Your task to perform on an android device: Check the price on the Dyson V11 Motorhead on Best Buy Image 0: 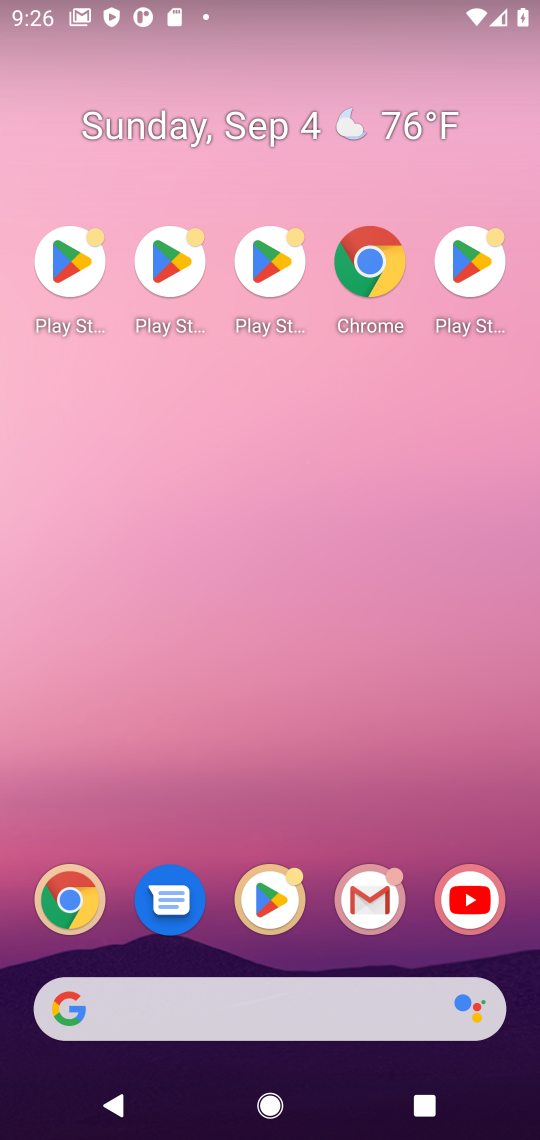
Step 0: drag from (353, 984) to (165, 266)
Your task to perform on an android device: Check the price on the Dyson V11 Motorhead on Best Buy Image 1: 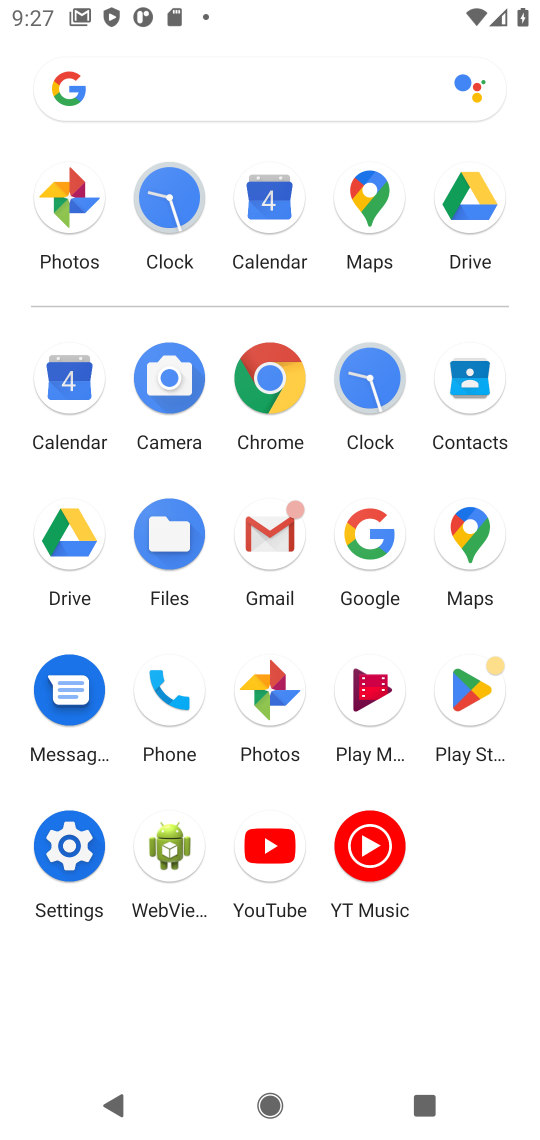
Step 1: click (283, 406)
Your task to perform on an android device: Check the price on the Dyson V11 Motorhead on Best Buy Image 2: 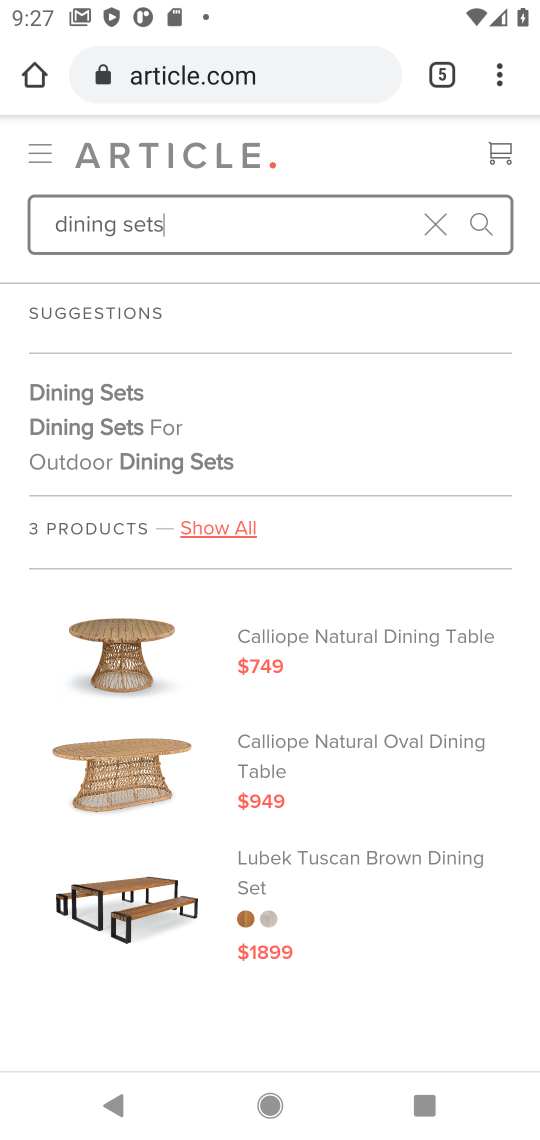
Step 2: click (38, 64)
Your task to perform on an android device: Check the price on the Dyson V11 Motorhead on Best Buy Image 3: 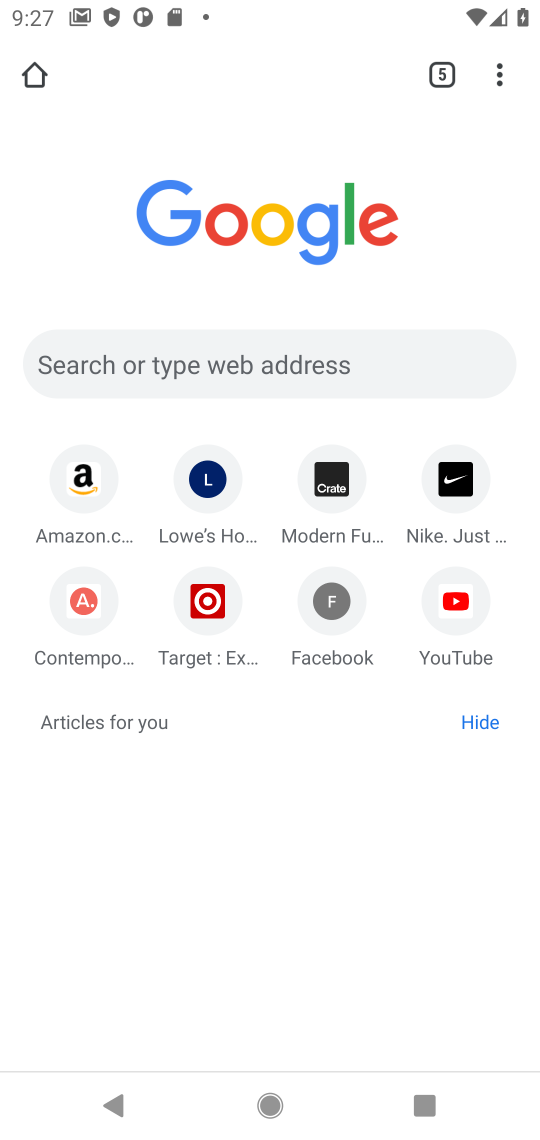
Step 3: click (251, 404)
Your task to perform on an android device: Check the price on the Dyson V11 Motorhead on Best Buy Image 4: 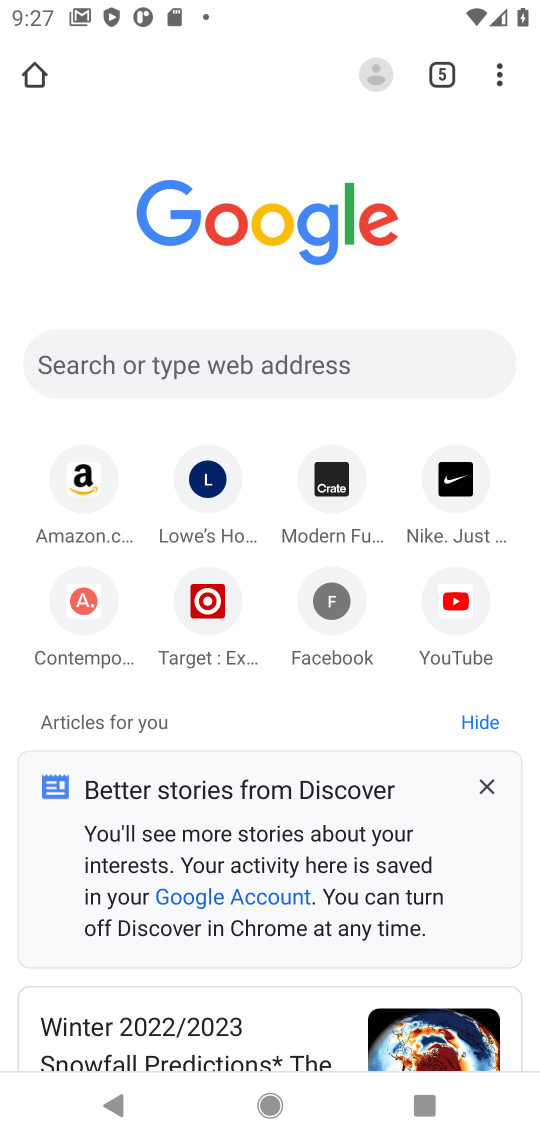
Step 4: click (253, 399)
Your task to perform on an android device: Check the price on the Dyson V11 Motorhead on Best Buy Image 5: 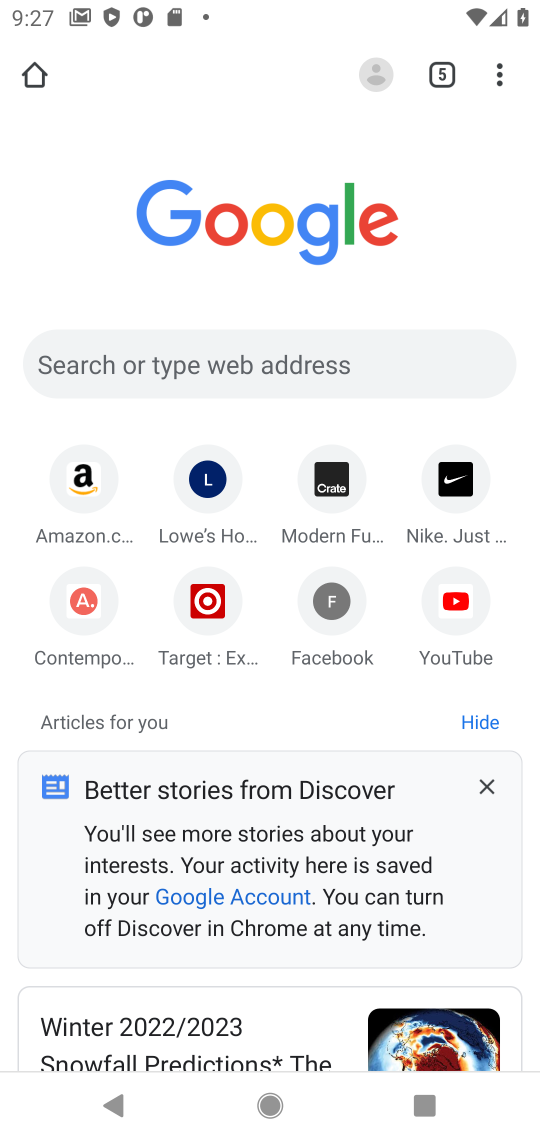
Step 5: click (318, 365)
Your task to perform on an android device: Check the price on the Dyson V11 Motorhead on Best Buy Image 6: 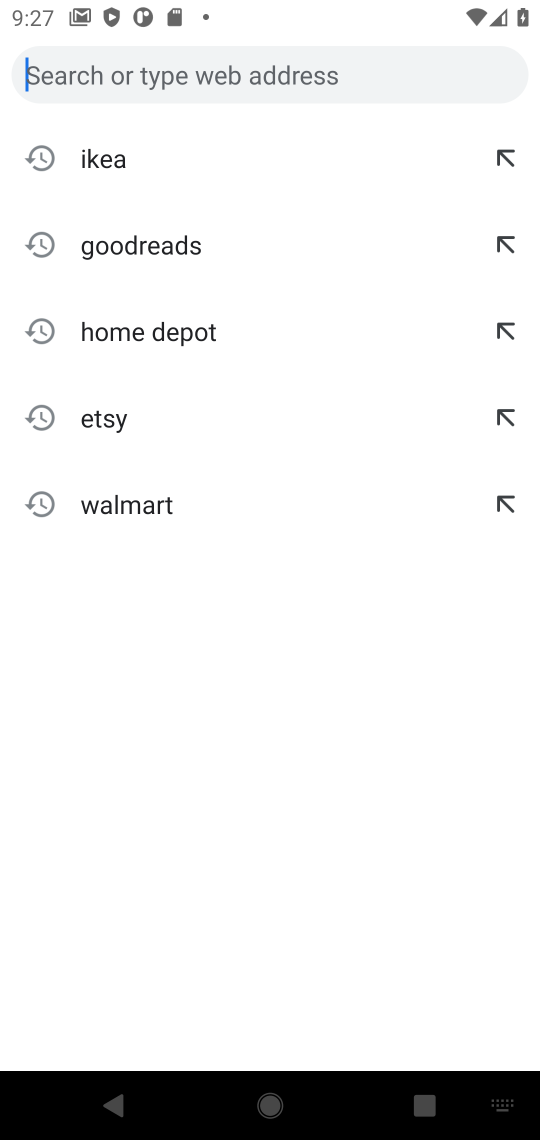
Step 6: type " Best Buy"
Your task to perform on an android device: Check the price on the Dyson V11 Motorhead on Best Buy Image 7: 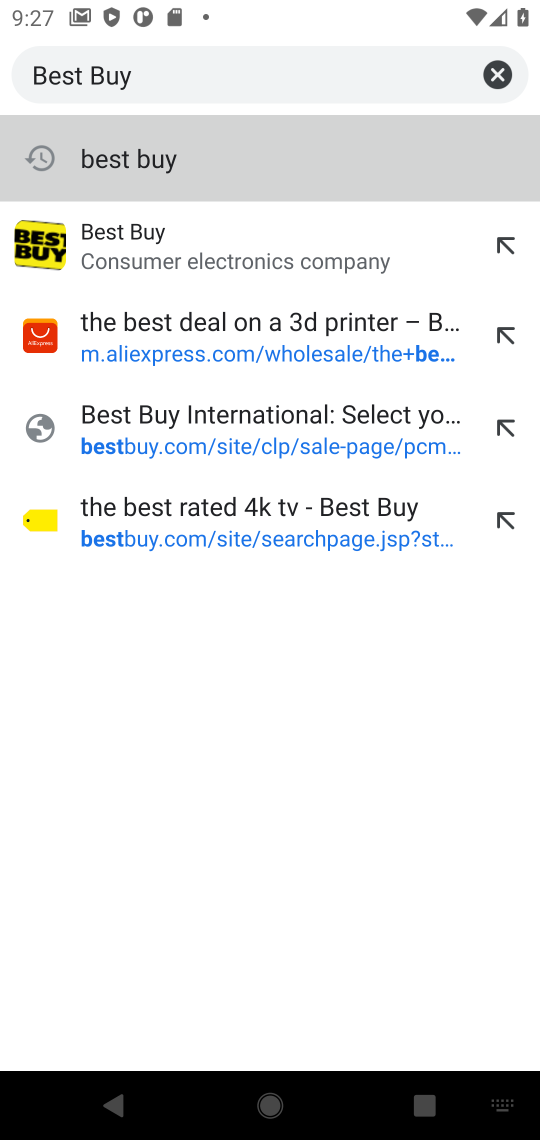
Step 7: click (168, 159)
Your task to perform on an android device: Check the price on the Dyson V11 Motorhead on Best Buy Image 8: 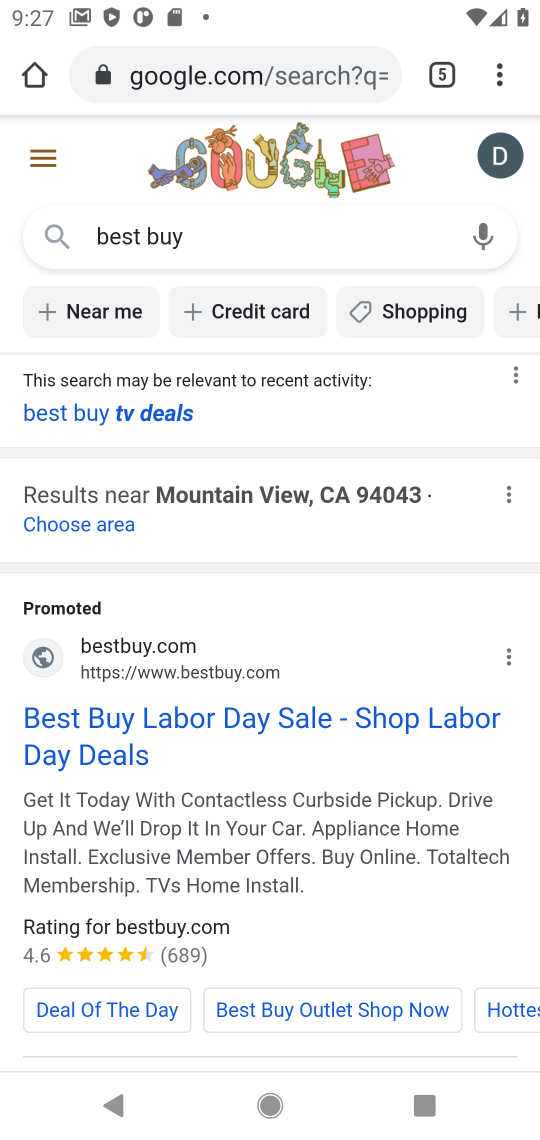
Step 8: click (72, 695)
Your task to perform on an android device: Check the price on the Dyson V11 Motorhead on Best Buy Image 9: 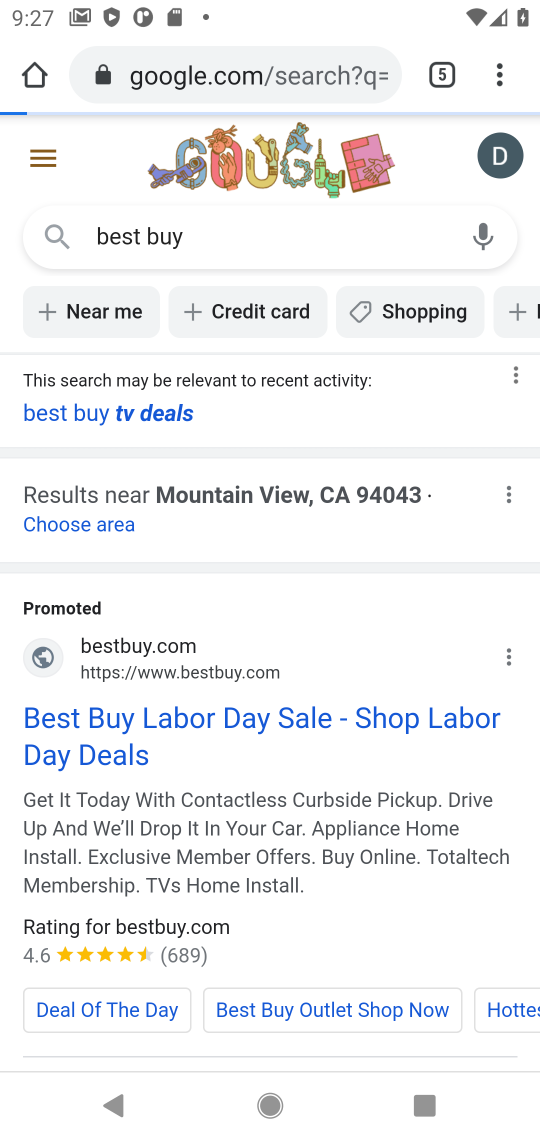
Step 9: click (97, 746)
Your task to perform on an android device: Check the price on the Dyson V11 Motorhead on Best Buy Image 10: 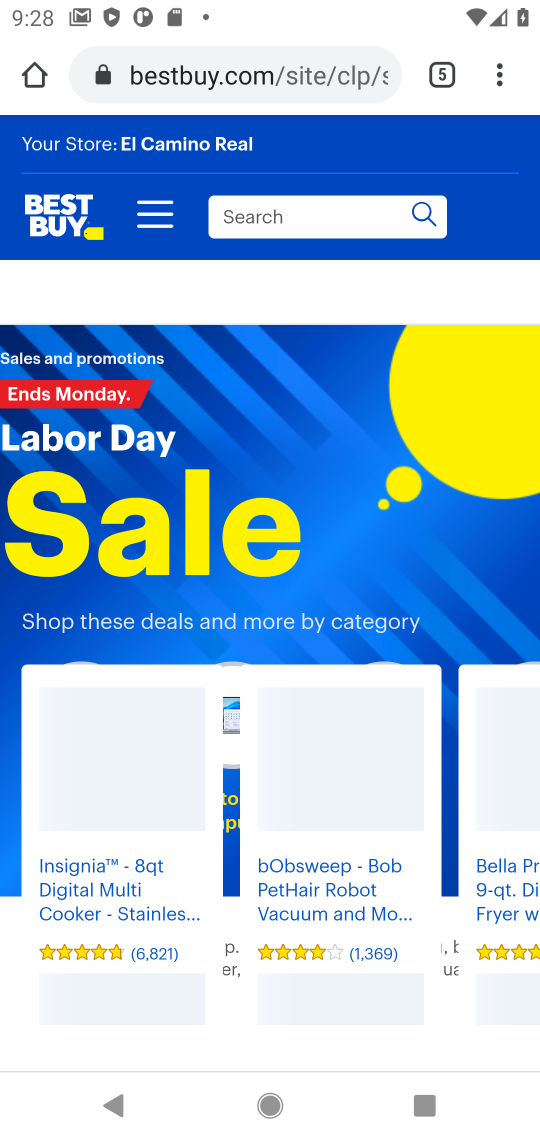
Step 10: click (274, 222)
Your task to perform on an android device: Check the price on the Dyson V11 Motorhead on Best Buy Image 11: 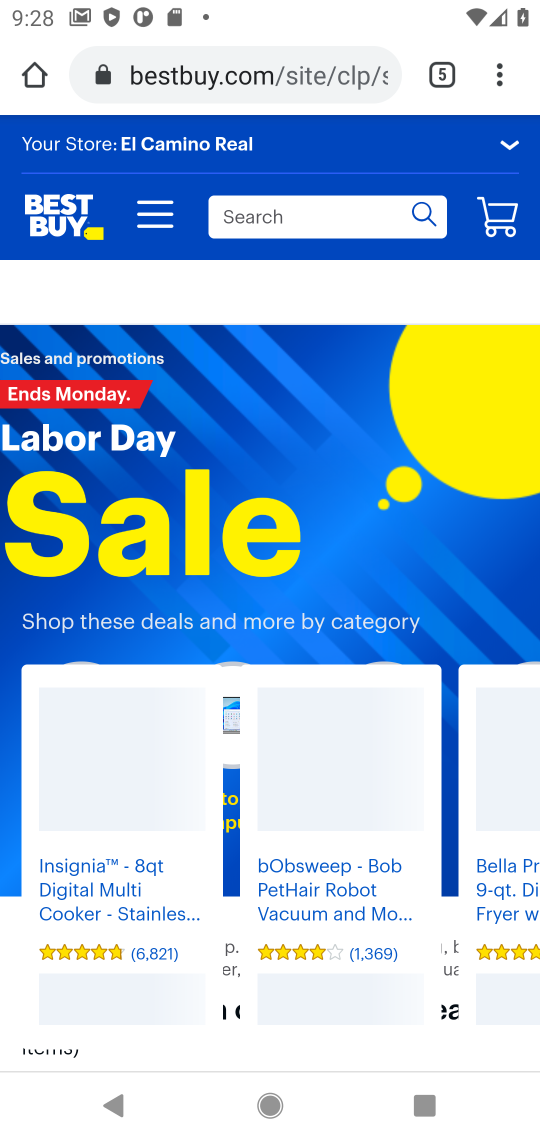
Step 11: click (241, 226)
Your task to perform on an android device: Check the price on the Dyson V11 Motorhead on Best Buy Image 12: 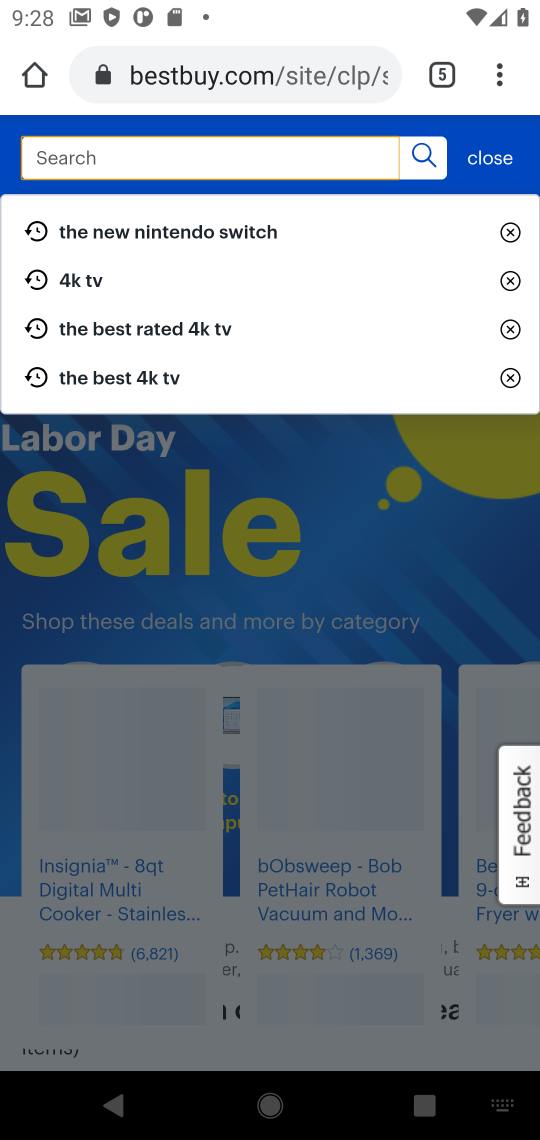
Step 12: type "the Dyson V11 Motorhead"
Your task to perform on an android device: Check the price on the Dyson V11 Motorhead on Best Buy Image 13: 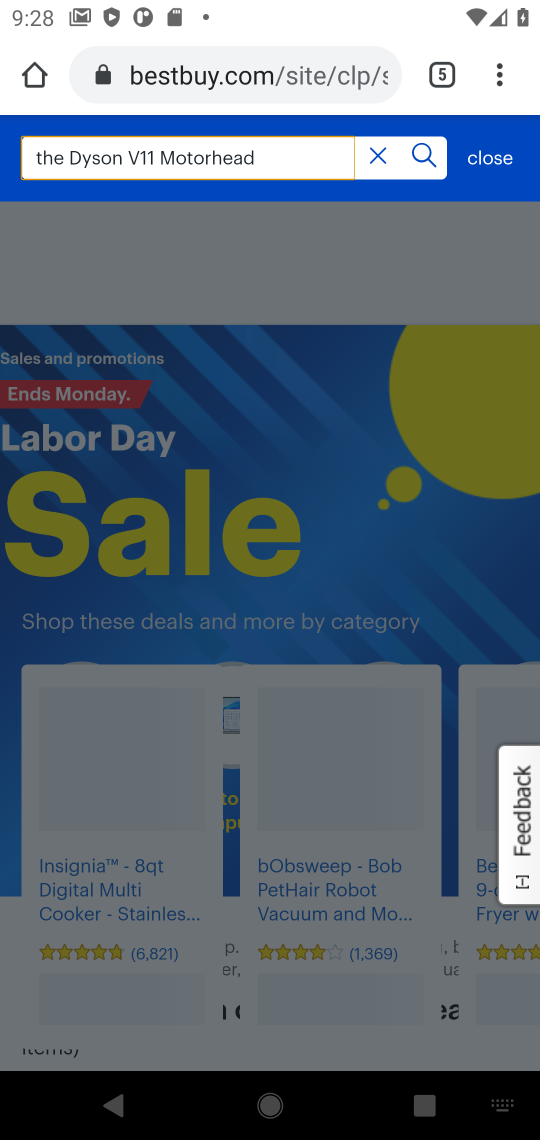
Step 13: click (421, 148)
Your task to perform on an android device: Check the price on the Dyson V11 Motorhead on Best Buy Image 14: 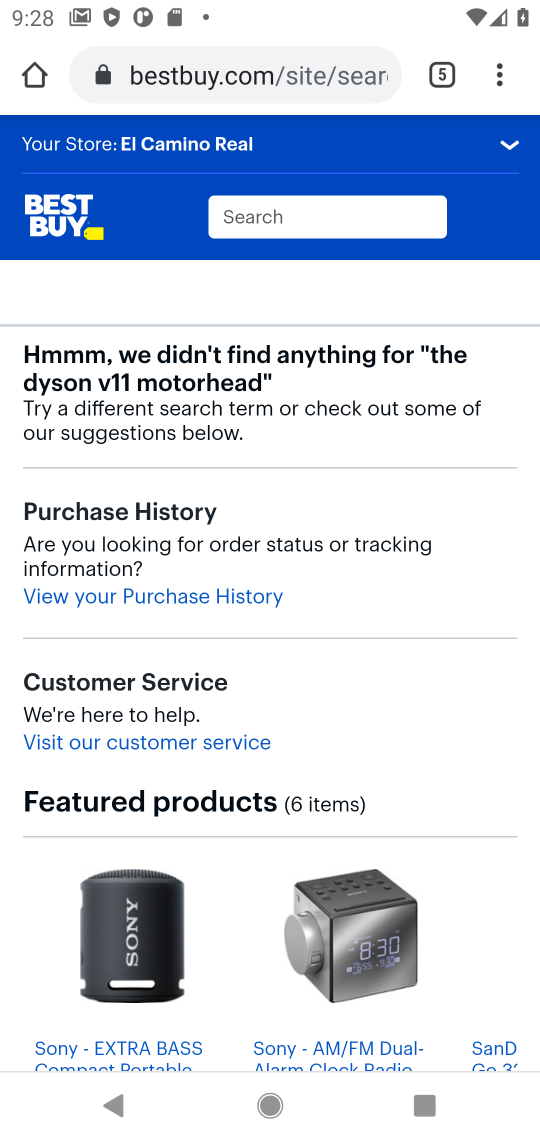
Step 14: task complete